Your task to perform on an android device: Open wifi settings Image 0: 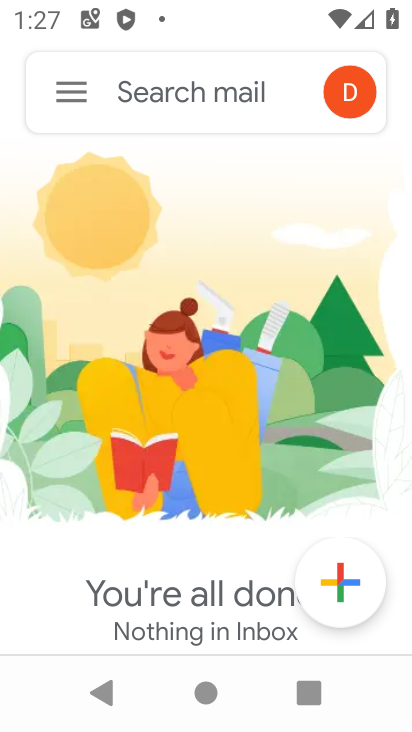
Step 0: press home button
Your task to perform on an android device: Open wifi settings Image 1: 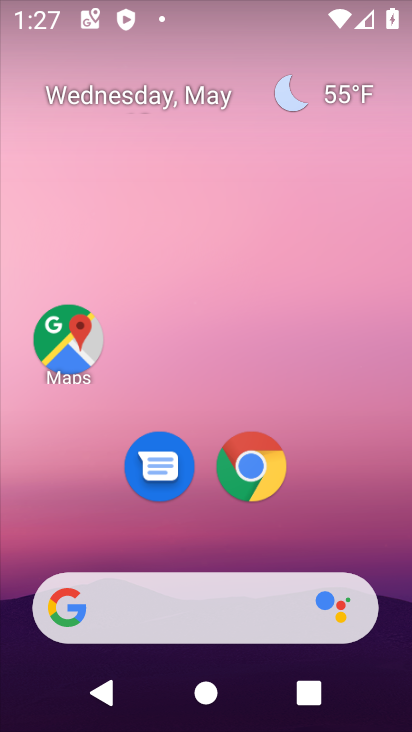
Step 1: drag from (204, 552) to (248, 63)
Your task to perform on an android device: Open wifi settings Image 2: 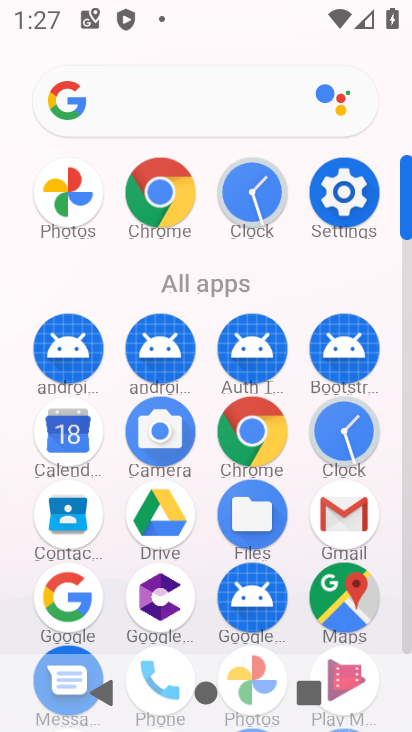
Step 2: click (347, 190)
Your task to perform on an android device: Open wifi settings Image 3: 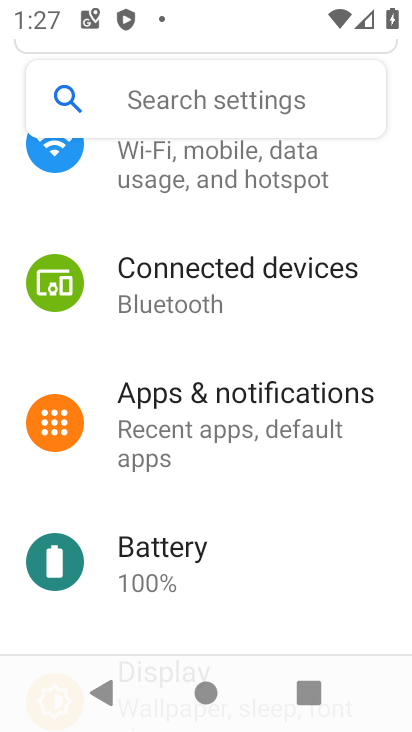
Step 3: drag from (235, 208) to (235, 481)
Your task to perform on an android device: Open wifi settings Image 4: 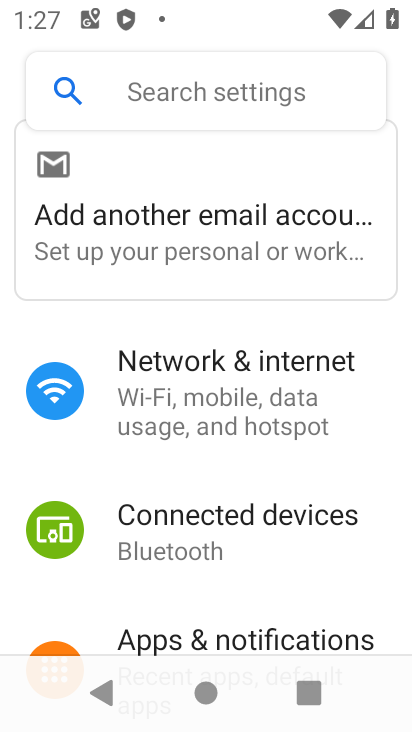
Step 4: click (215, 360)
Your task to perform on an android device: Open wifi settings Image 5: 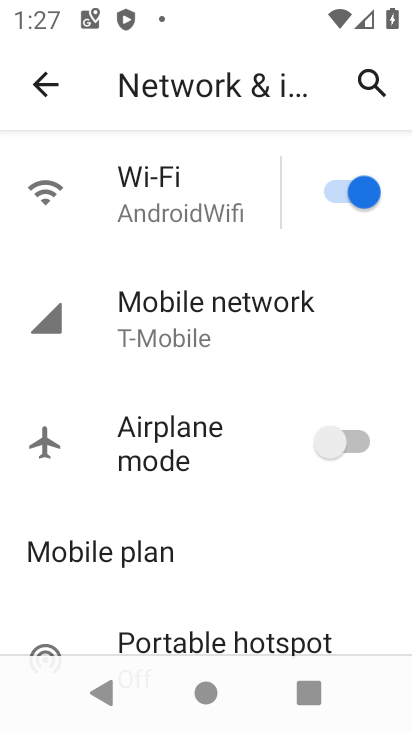
Step 5: click (22, 193)
Your task to perform on an android device: Open wifi settings Image 6: 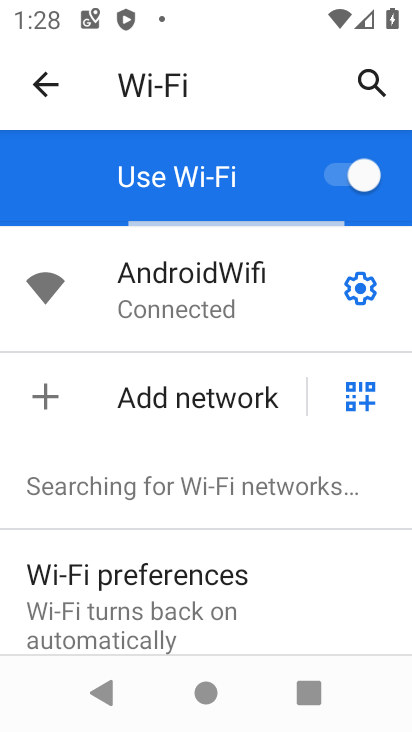
Step 6: task complete